Your task to perform on an android device: show emergency info Image 0: 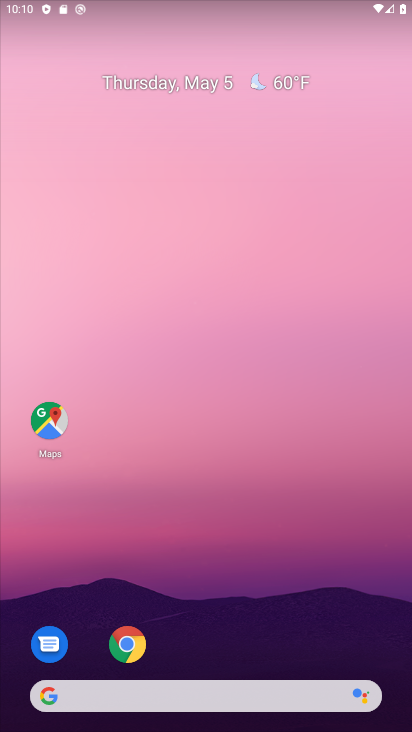
Step 0: drag from (327, 605) to (327, 105)
Your task to perform on an android device: show emergency info Image 1: 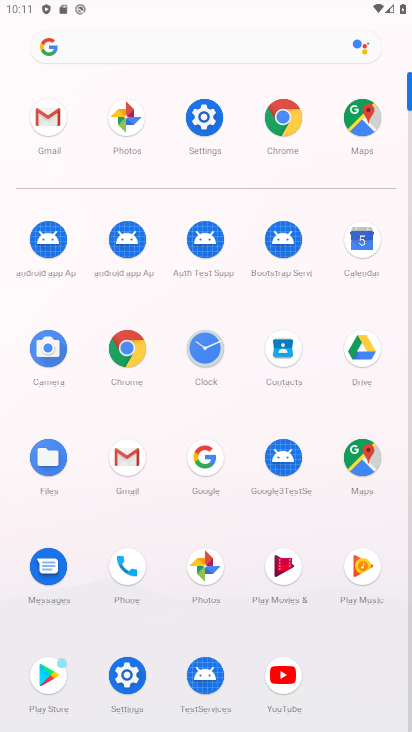
Step 1: click (119, 673)
Your task to perform on an android device: show emergency info Image 2: 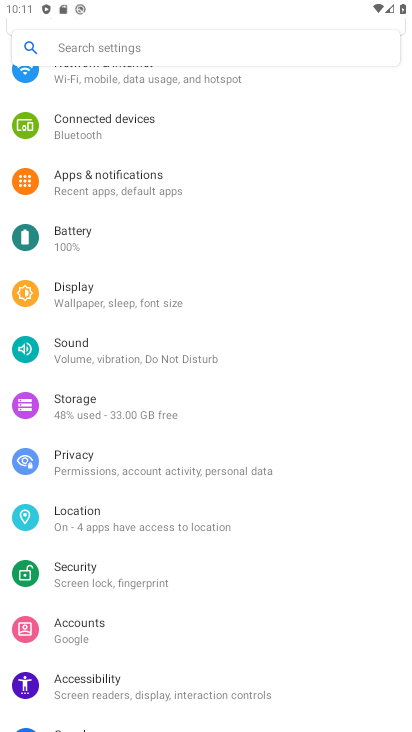
Step 2: drag from (285, 625) to (286, 254)
Your task to perform on an android device: show emergency info Image 3: 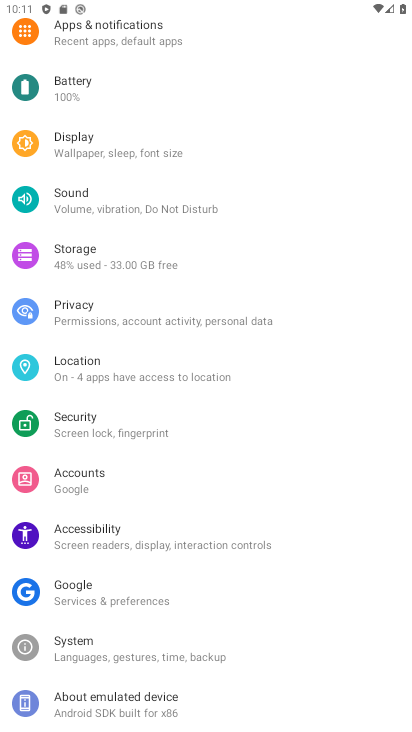
Step 3: click (114, 695)
Your task to perform on an android device: show emergency info Image 4: 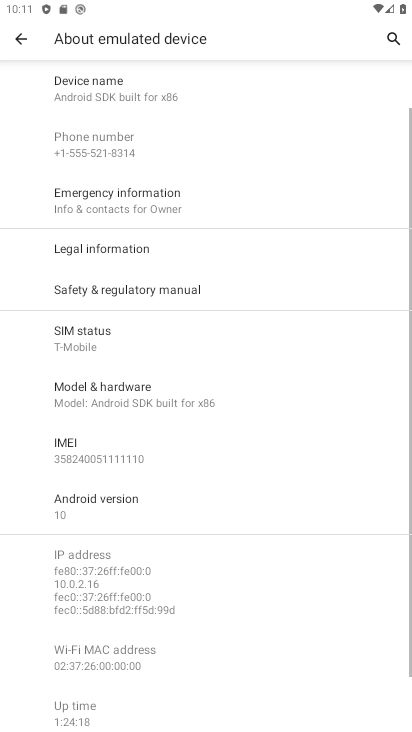
Step 4: click (110, 193)
Your task to perform on an android device: show emergency info Image 5: 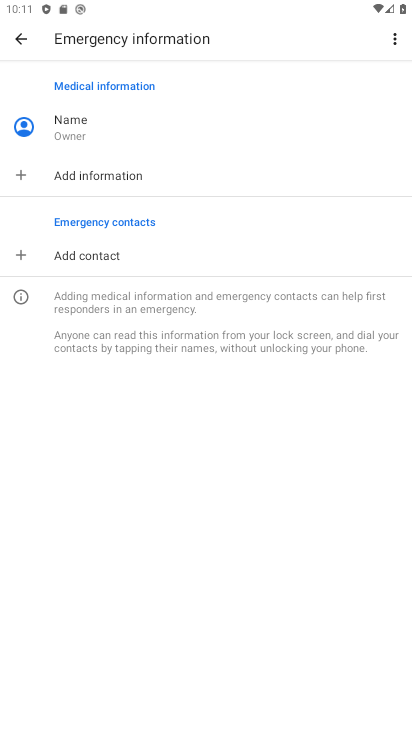
Step 5: task complete